Your task to perform on an android device: Show me popular videos on Youtube Image 0: 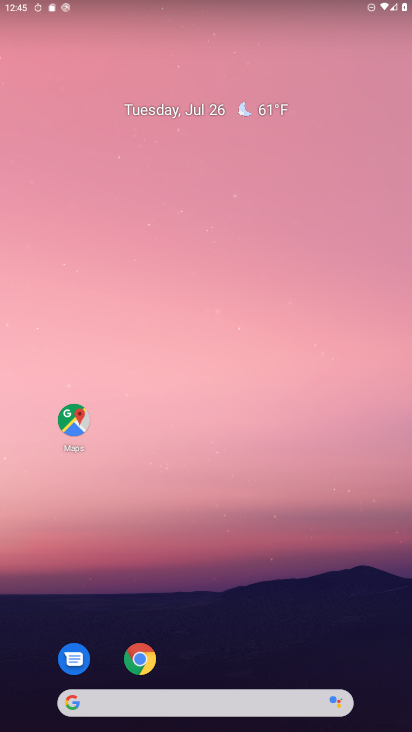
Step 0: click (160, 320)
Your task to perform on an android device: Show me popular videos on Youtube Image 1: 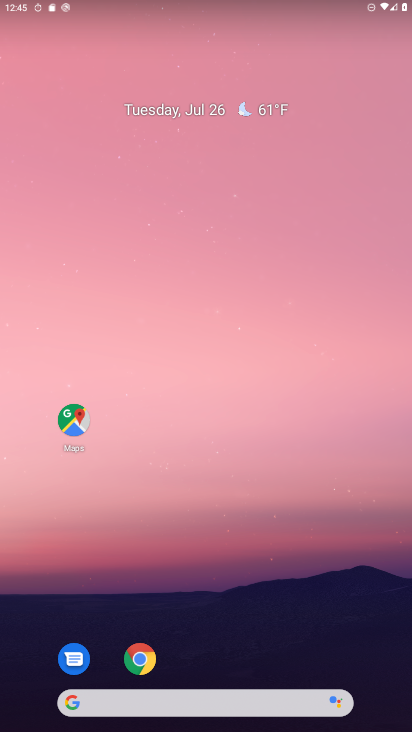
Step 1: click (263, 37)
Your task to perform on an android device: Show me popular videos on Youtube Image 2: 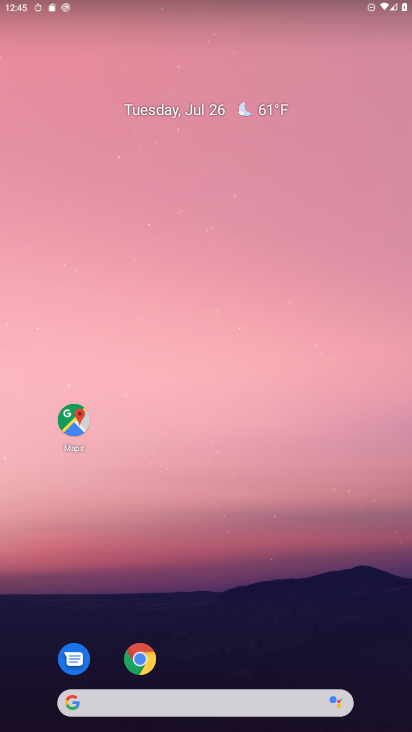
Step 2: drag from (78, 638) to (225, 161)
Your task to perform on an android device: Show me popular videos on Youtube Image 3: 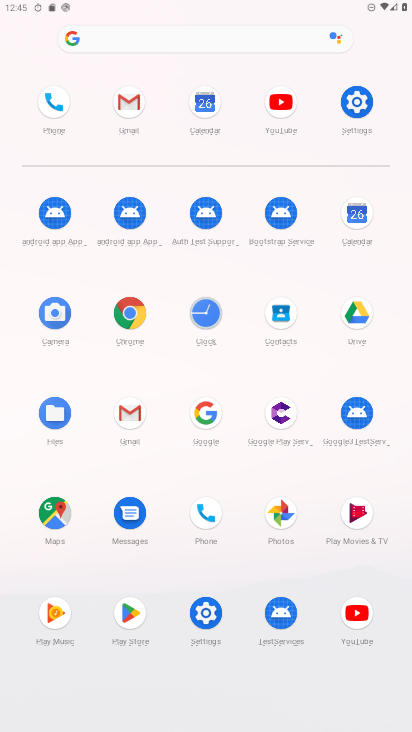
Step 3: click (361, 628)
Your task to perform on an android device: Show me popular videos on Youtube Image 4: 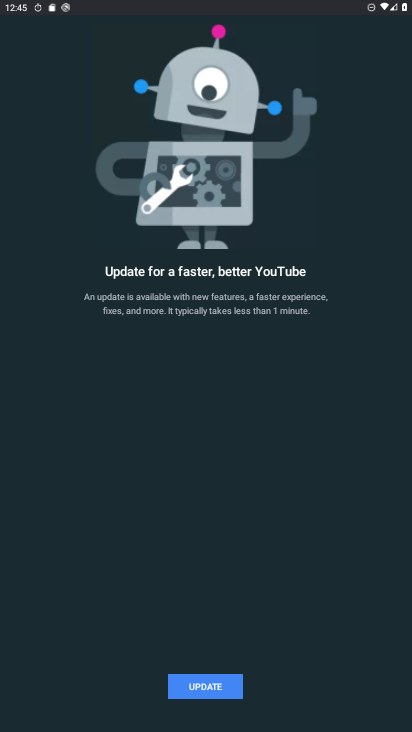
Step 4: click (208, 689)
Your task to perform on an android device: Show me popular videos on Youtube Image 5: 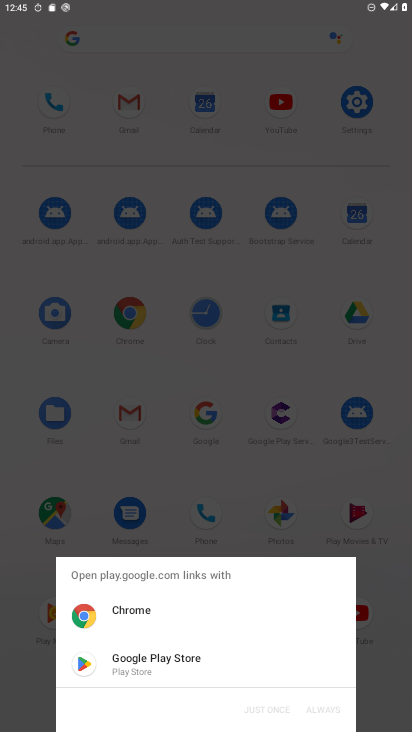
Step 5: click (143, 664)
Your task to perform on an android device: Show me popular videos on Youtube Image 6: 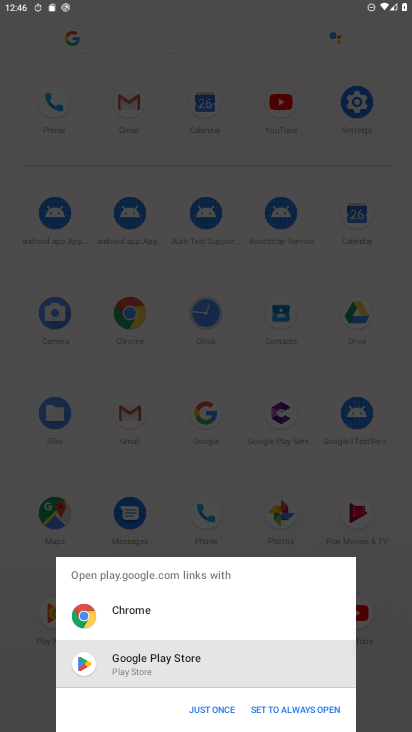
Step 6: click (200, 710)
Your task to perform on an android device: Show me popular videos on Youtube Image 7: 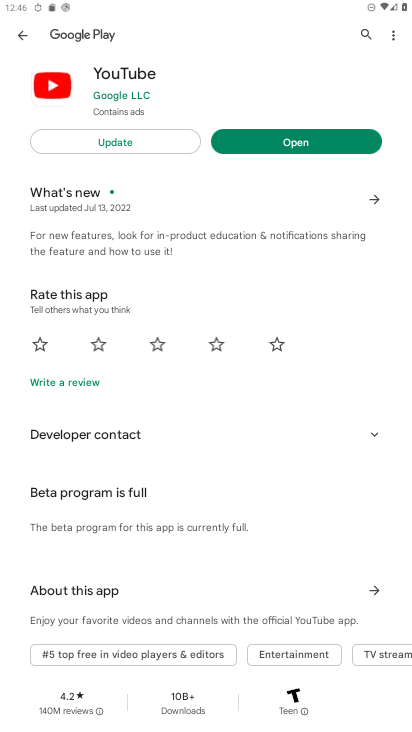
Step 7: click (269, 141)
Your task to perform on an android device: Show me popular videos on Youtube Image 8: 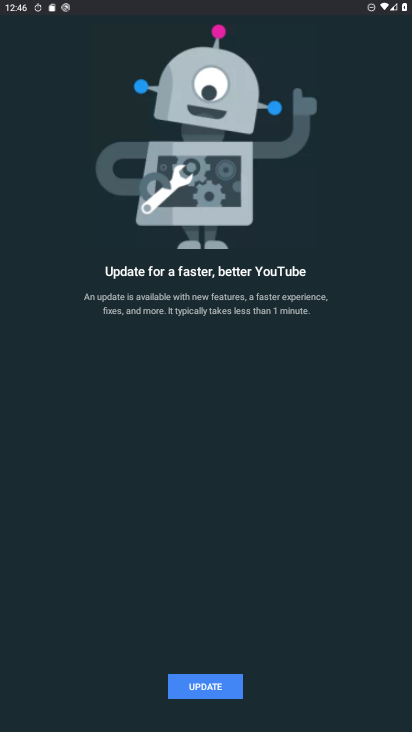
Step 8: task complete